Your task to perform on an android device: Show me popular videos on Youtube Image 0: 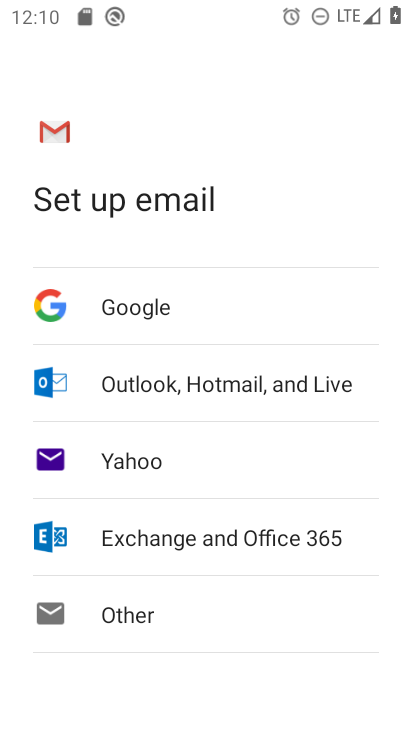
Step 0: press home button
Your task to perform on an android device: Show me popular videos on Youtube Image 1: 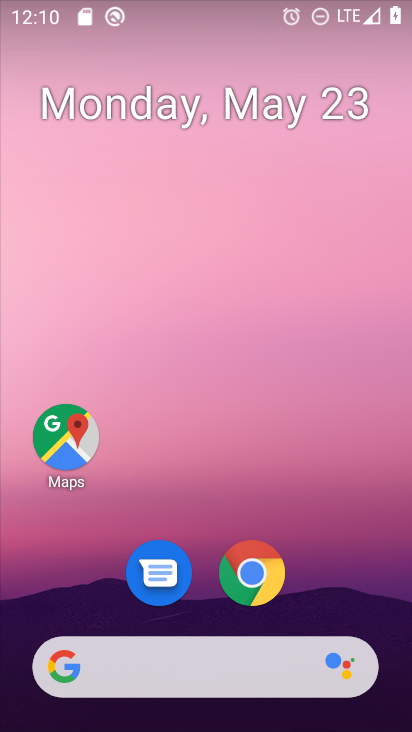
Step 1: drag from (312, 589) to (288, 85)
Your task to perform on an android device: Show me popular videos on Youtube Image 2: 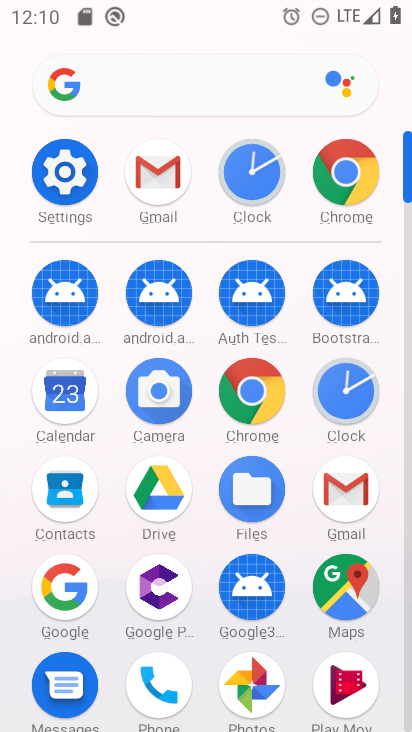
Step 2: drag from (202, 635) to (245, 369)
Your task to perform on an android device: Show me popular videos on Youtube Image 3: 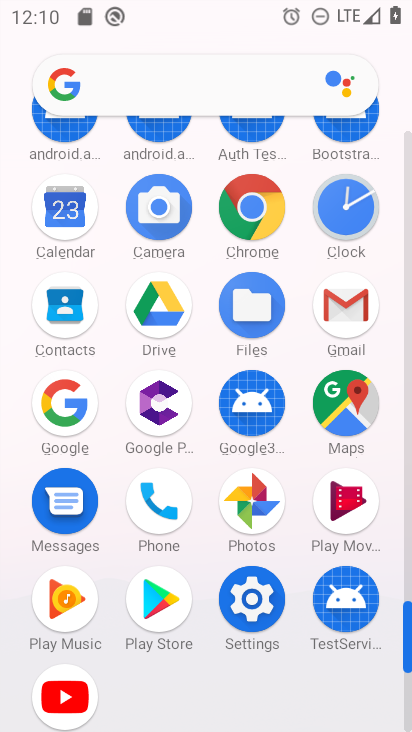
Step 3: click (62, 695)
Your task to perform on an android device: Show me popular videos on Youtube Image 4: 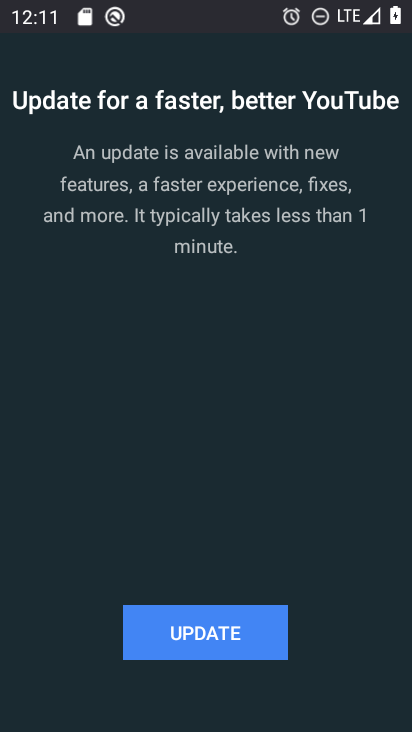
Step 4: click (198, 639)
Your task to perform on an android device: Show me popular videos on Youtube Image 5: 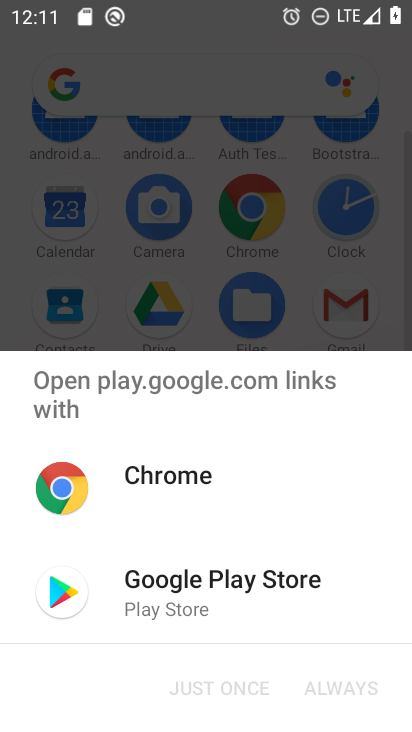
Step 5: click (176, 592)
Your task to perform on an android device: Show me popular videos on Youtube Image 6: 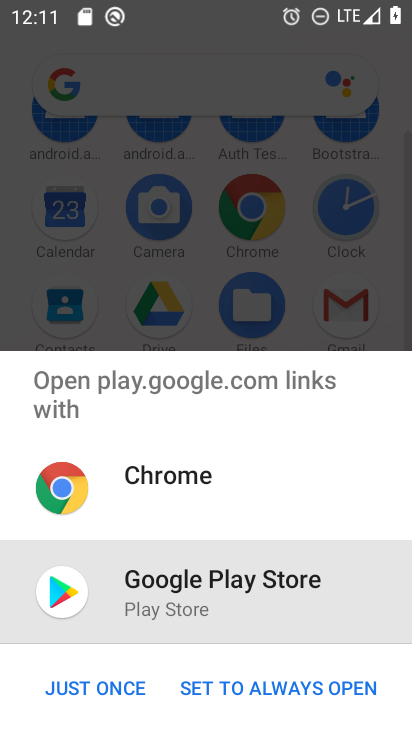
Step 6: click (83, 691)
Your task to perform on an android device: Show me popular videos on Youtube Image 7: 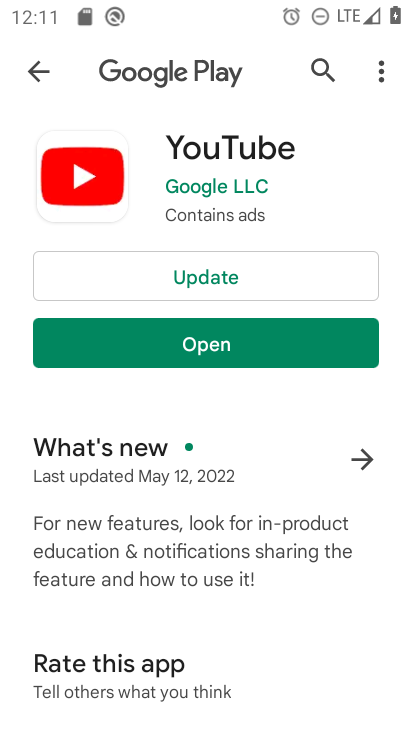
Step 7: click (281, 278)
Your task to perform on an android device: Show me popular videos on Youtube Image 8: 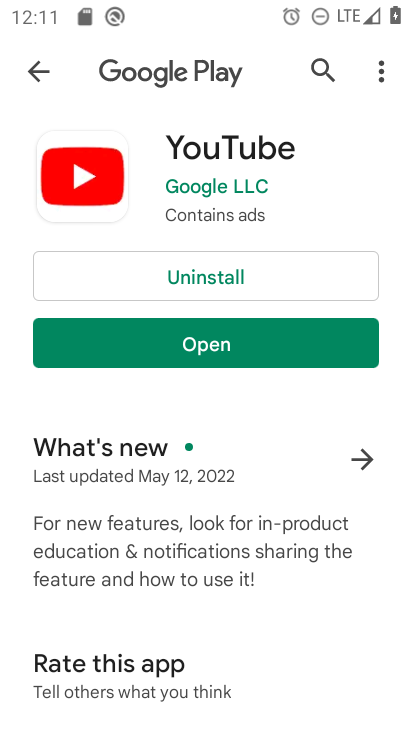
Step 8: click (263, 327)
Your task to perform on an android device: Show me popular videos on Youtube Image 9: 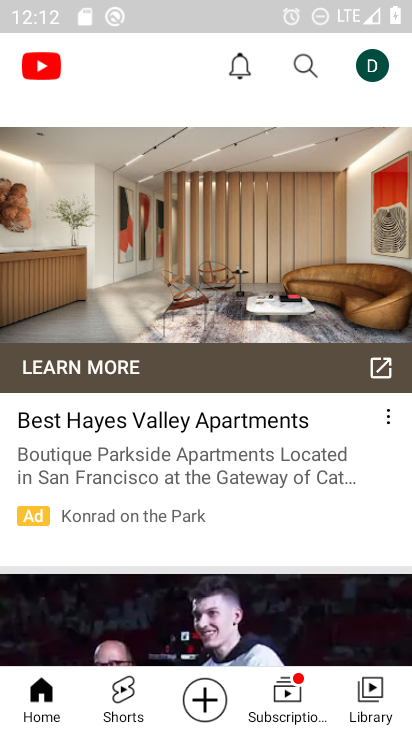
Step 9: drag from (162, 190) to (196, 581)
Your task to perform on an android device: Show me popular videos on Youtube Image 10: 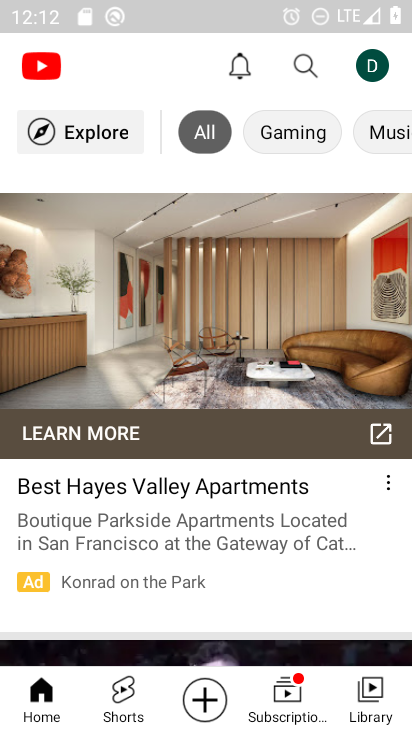
Step 10: click (91, 135)
Your task to perform on an android device: Show me popular videos on Youtube Image 11: 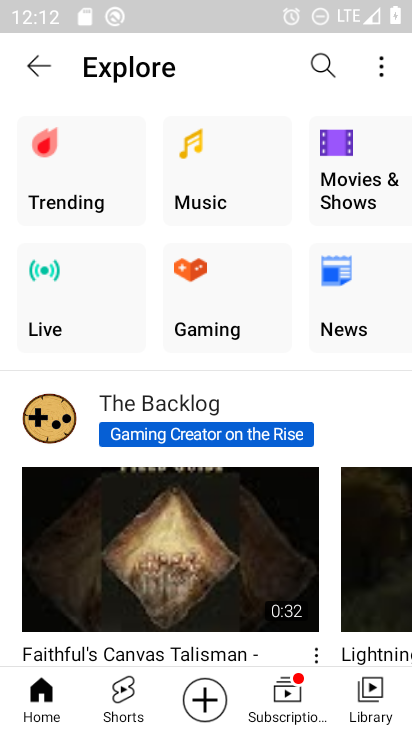
Step 11: click (61, 177)
Your task to perform on an android device: Show me popular videos on Youtube Image 12: 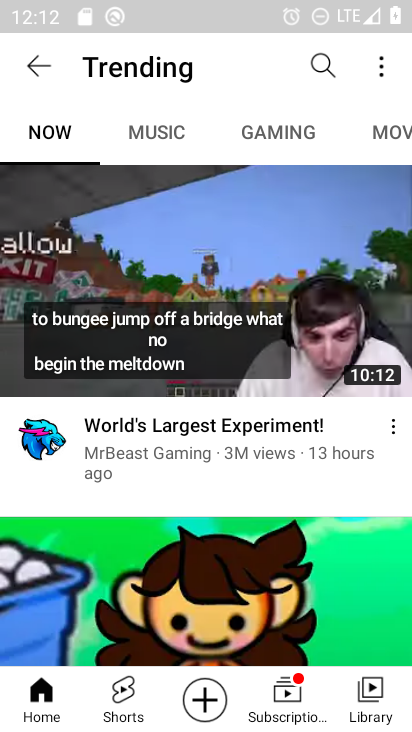
Step 12: task complete